Your task to perform on an android device: turn off wifi Image 0: 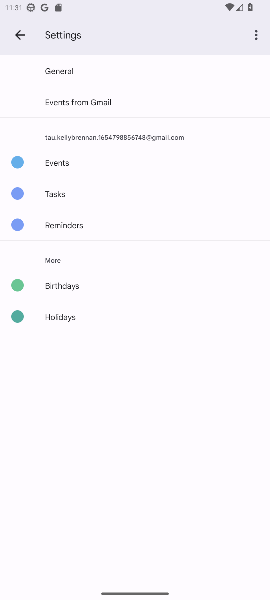
Step 0: press home button
Your task to perform on an android device: turn off wifi Image 1: 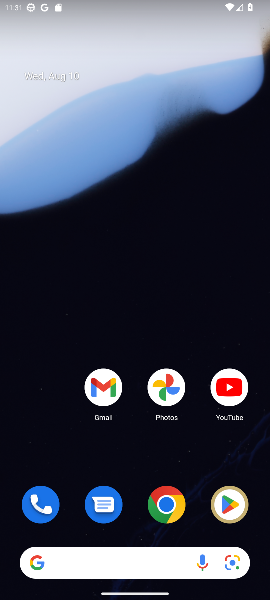
Step 1: drag from (59, 450) to (11, 26)
Your task to perform on an android device: turn off wifi Image 2: 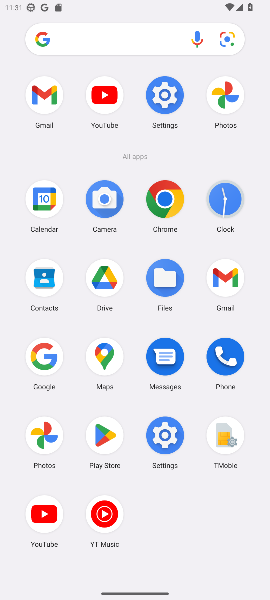
Step 2: click (173, 91)
Your task to perform on an android device: turn off wifi Image 3: 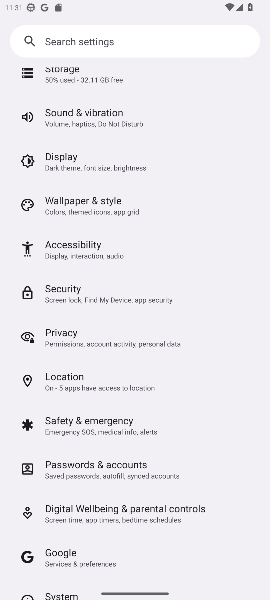
Step 3: drag from (130, 98) to (176, 492)
Your task to perform on an android device: turn off wifi Image 4: 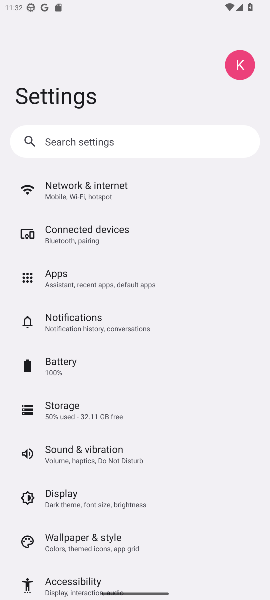
Step 4: click (77, 191)
Your task to perform on an android device: turn off wifi Image 5: 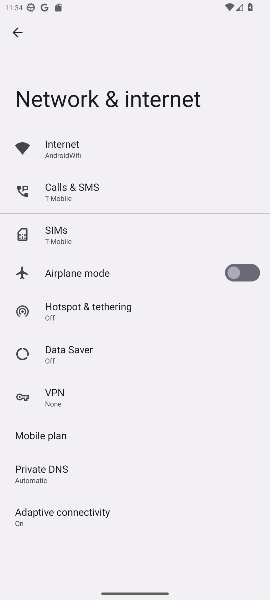
Step 5: press home button
Your task to perform on an android device: turn off wifi Image 6: 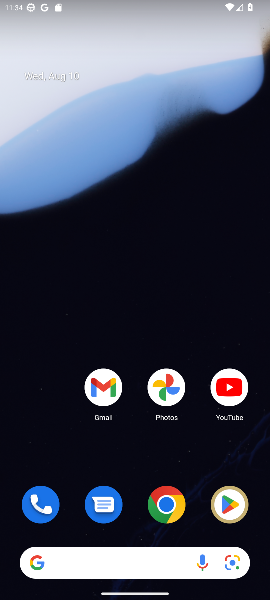
Step 6: drag from (50, 447) to (22, 82)
Your task to perform on an android device: turn off wifi Image 7: 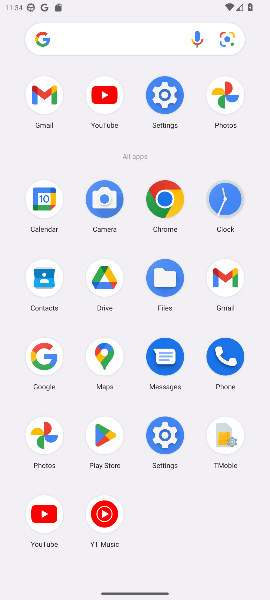
Step 7: click (159, 94)
Your task to perform on an android device: turn off wifi Image 8: 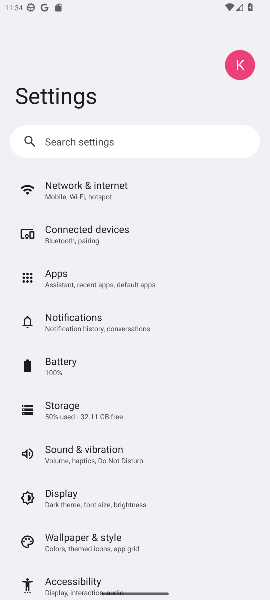
Step 8: click (104, 196)
Your task to perform on an android device: turn off wifi Image 9: 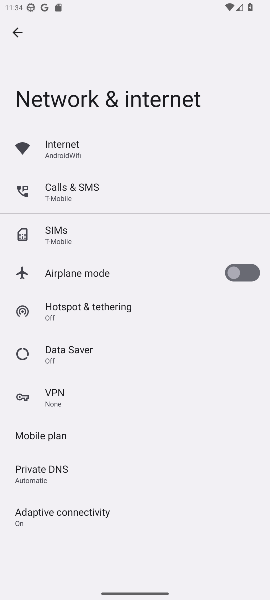
Step 9: click (60, 156)
Your task to perform on an android device: turn off wifi Image 10: 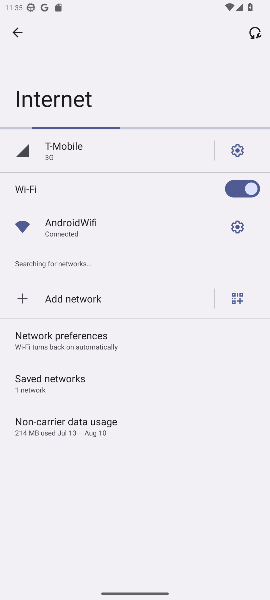
Step 10: click (243, 192)
Your task to perform on an android device: turn off wifi Image 11: 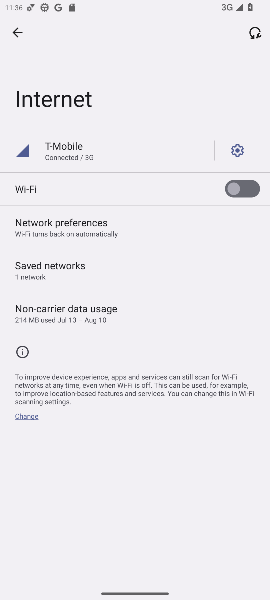
Step 11: task complete